Your task to perform on an android device: Open calendar and show me the second week of next month Image 0: 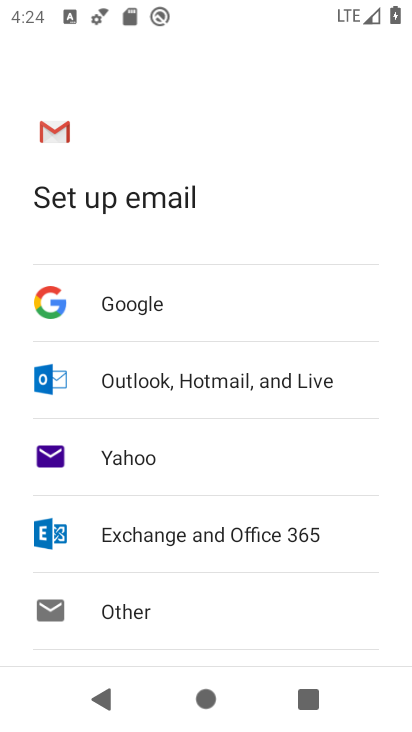
Step 0: press home button
Your task to perform on an android device: Open calendar and show me the second week of next month Image 1: 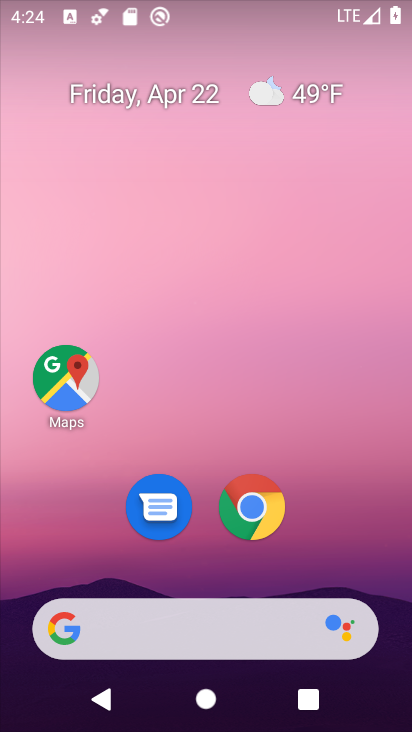
Step 1: drag from (365, 556) to (296, 211)
Your task to perform on an android device: Open calendar and show me the second week of next month Image 2: 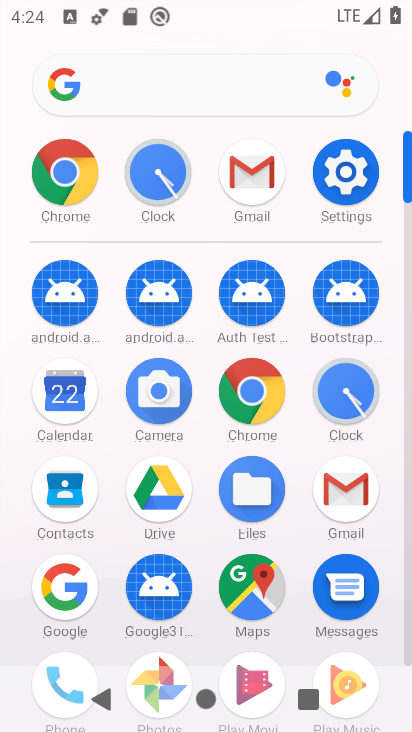
Step 2: click (57, 392)
Your task to perform on an android device: Open calendar and show me the second week of next month Image 3: 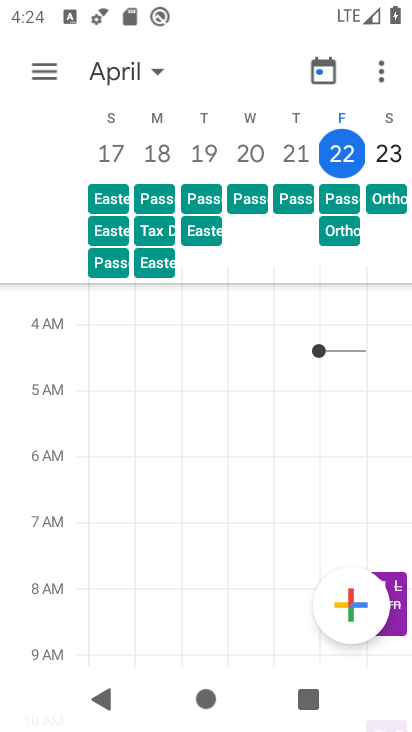
Step 3: click (150, 74)
Your task to perform on an android device: Open calendar and show me the second week of next month Image 4: 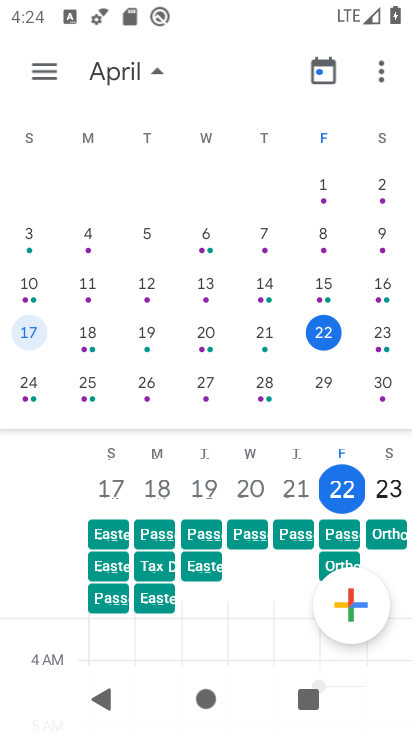
Step 4: drag from (367, 268) to (1, 232)
Your task to perform on an android device: Open calendar and show me the second week of next month Image 5: 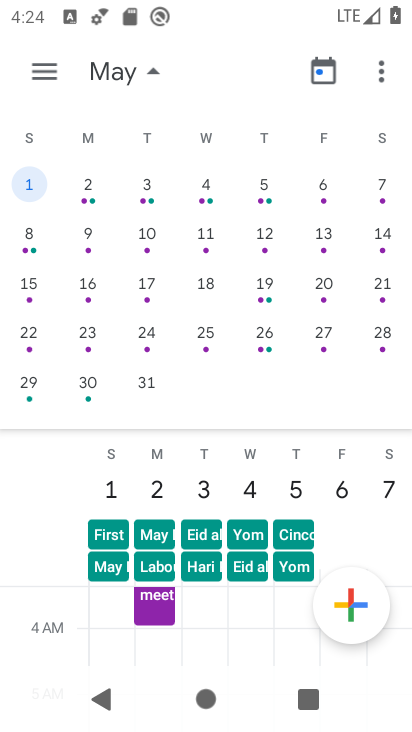
Step 5: click (28, 234)
Your task to perform on an android device: Open calendar and show me the second week of next month Image 6: 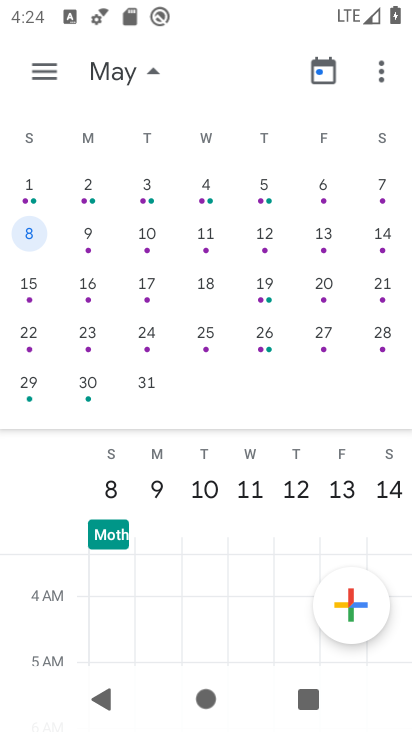
Step 6: task complete